Your task to perform on an android device: Go to sound settings Image 0: 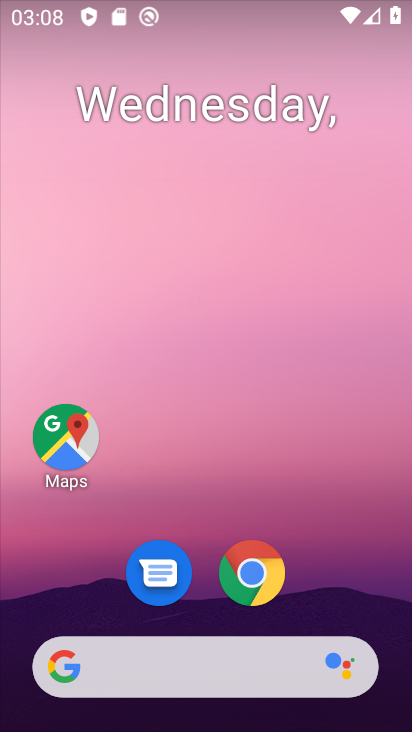
Step 0: drag from (211, 562) to (208, 180)
Your task to perform on an android device: Go to sound settings Image 1: 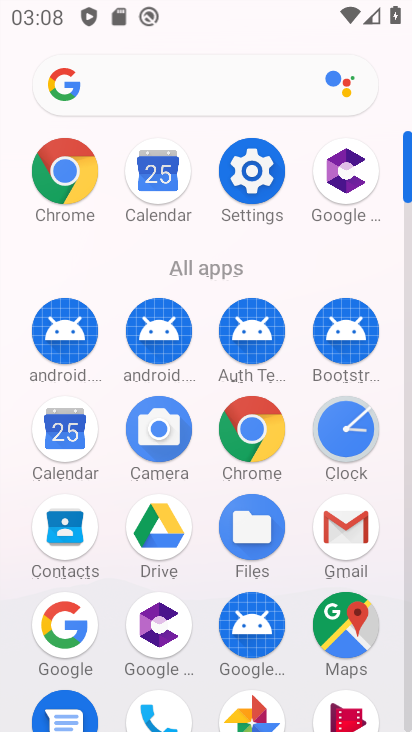
Step 1: click (246, 145)
Your task to perform on an android device: Go to sound settings Image 2: 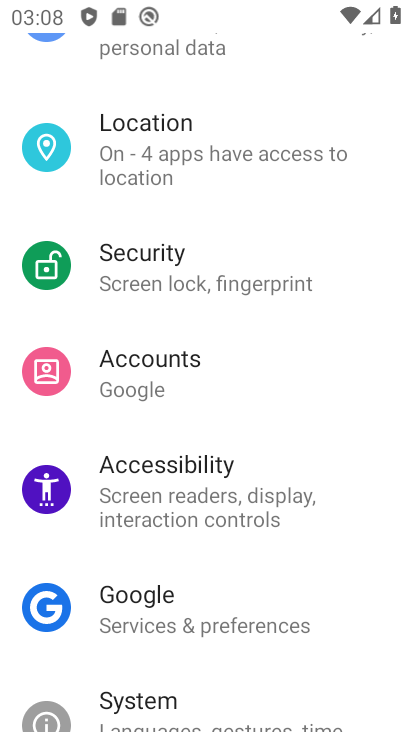
Step 2: drag from (224, 174) to (240, 536)
Your task to perform on an android device: Go to sound settings Image 3: 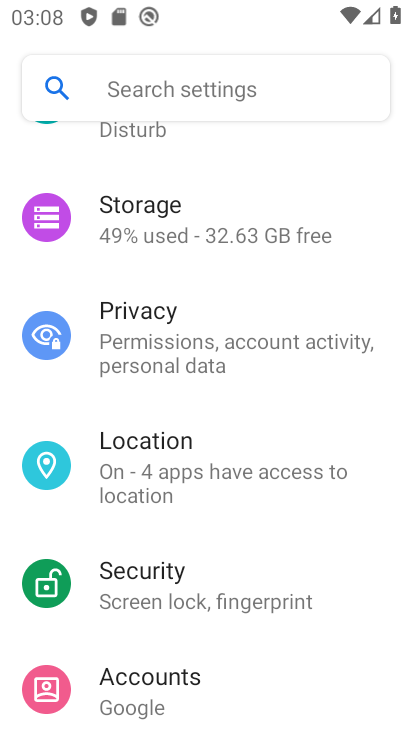
Step 3: drag from (248, 140) to (248, 663)
Your task to perform on an android device: Go to sound settings Image 4: 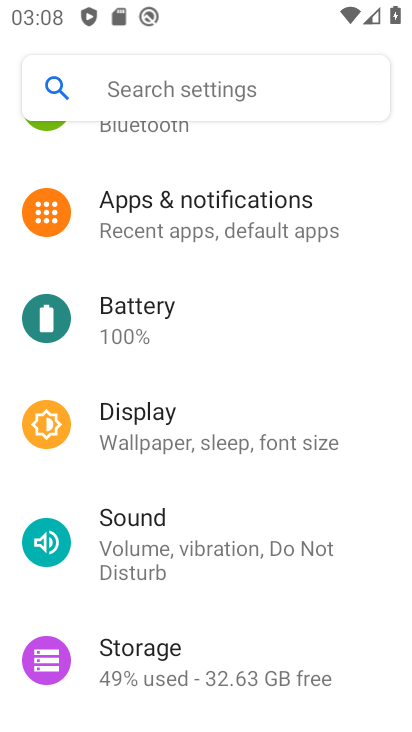
Step 4: click (130, 544)
Your task to perform on an android device: Go to sound settings Image 5: 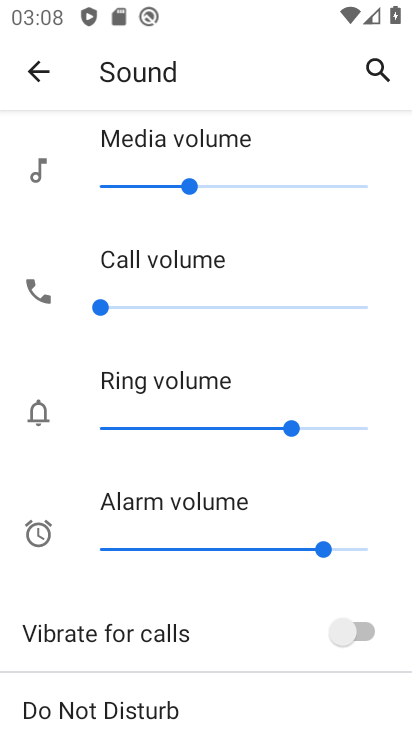
Step 5: task complete